Your task to perform on an android device: toggle improve location accuracy Image 0: 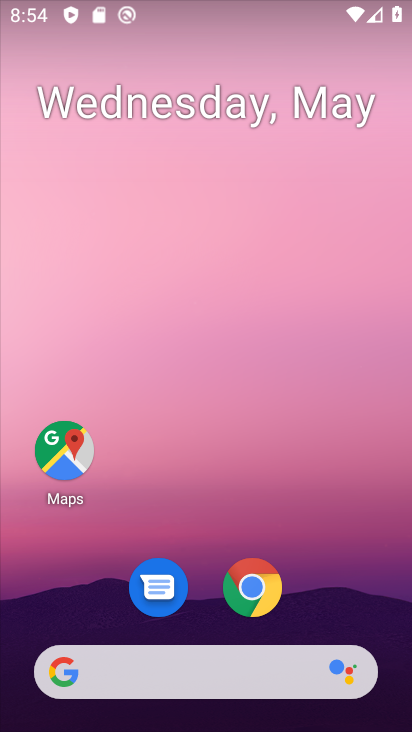
Step 0: drag from (94, 637) to (305, 139)
Your task to perform on an android device: toggle improve location accuracy Image 1: 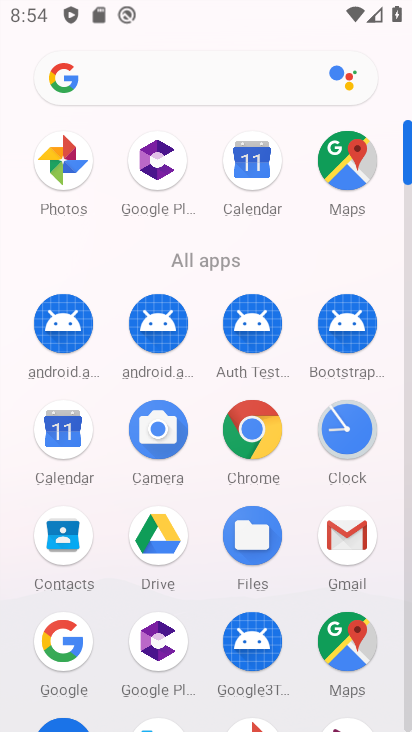
Step 1: drag from (187, 582) to (245, 394)
Your task to perform on an android device: toggle improve location accuracy Image 2: 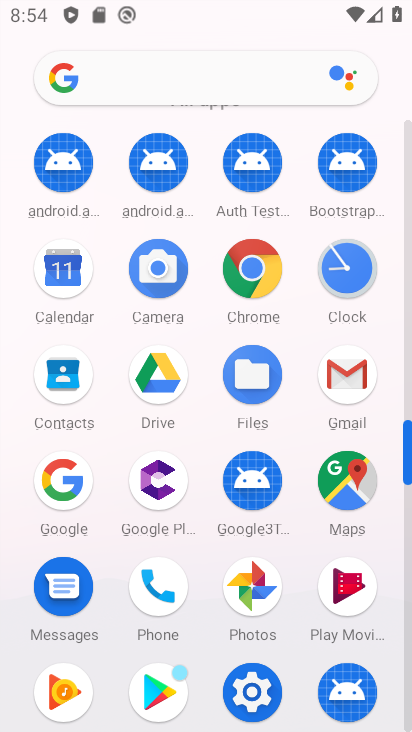
Step 2: click (252, 683)
Your task to perform on an android device: toggle improve location accuracy Image 3: 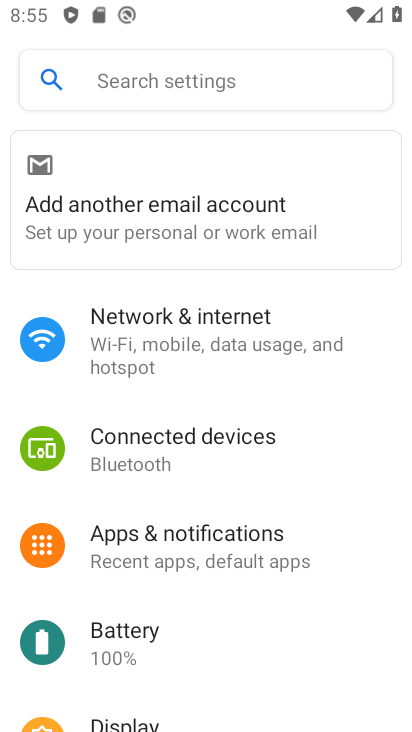
Step 3: drag from (185, 623) to (365, 232)
Your task to perform on an android device: toggle improve location accuracy Image 4: 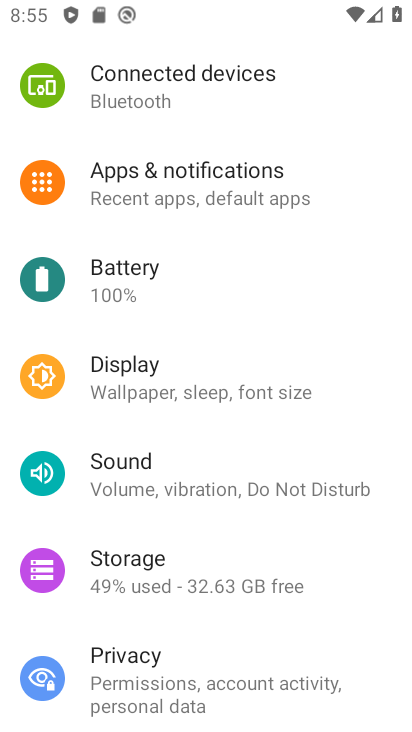
Step 4: drag from (198, 588) to (300, 281)
Your task to perform on an android device: toggle improve location accuracy Image 5: 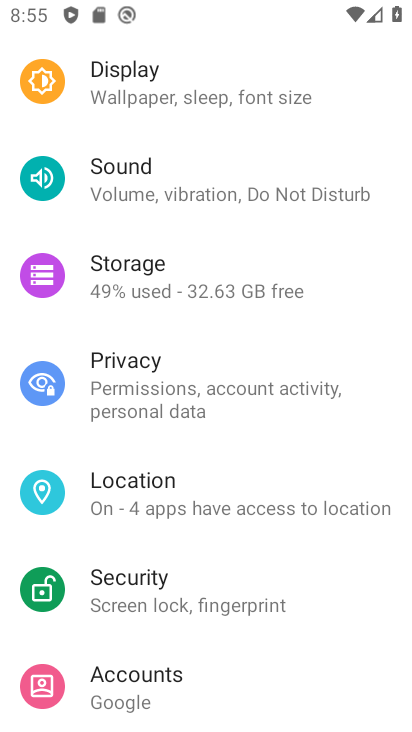
Step 5: click (157, 500)
Your task to perform on an android device: toggle improve location accuracy Image 6: 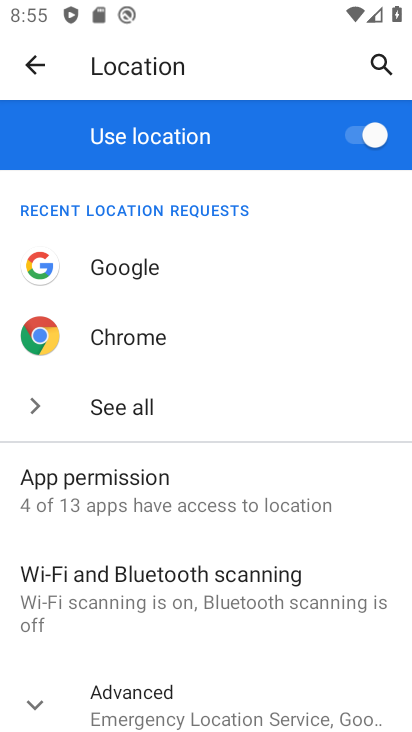
Step 6: drag from (142, 695) to (186, 520)
Your task to perform on an android device: toggle improve location accuracy Image 7: 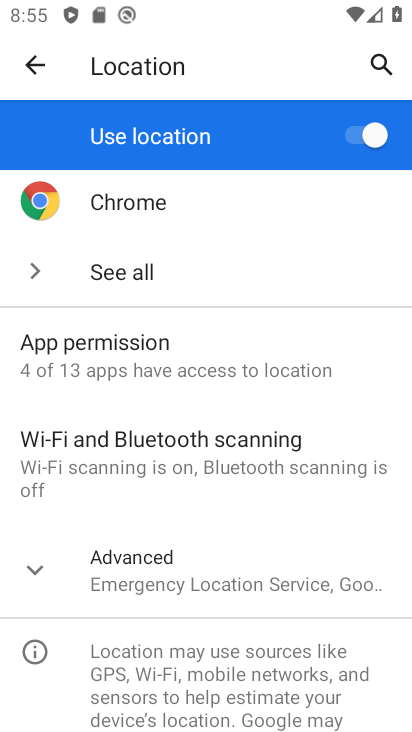
Step 7: click (138, 582)
Your task to perform on an android device: toggle improve location accuracy Image 8: 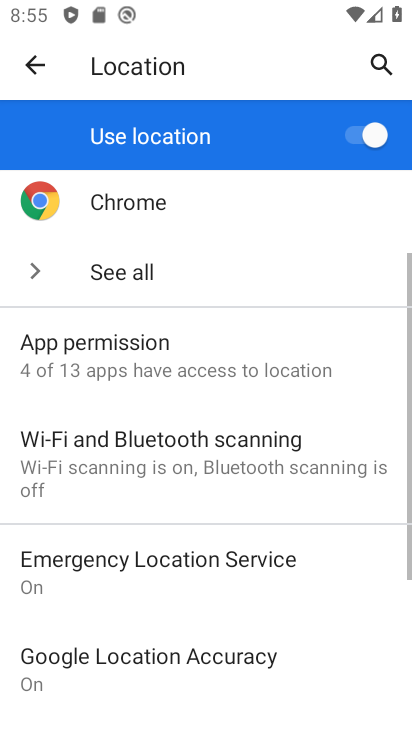
Step 8: drag from (138, 581) to (230, 363)
Your task to perform on an android device: toggle improve location accuracy Image 9: 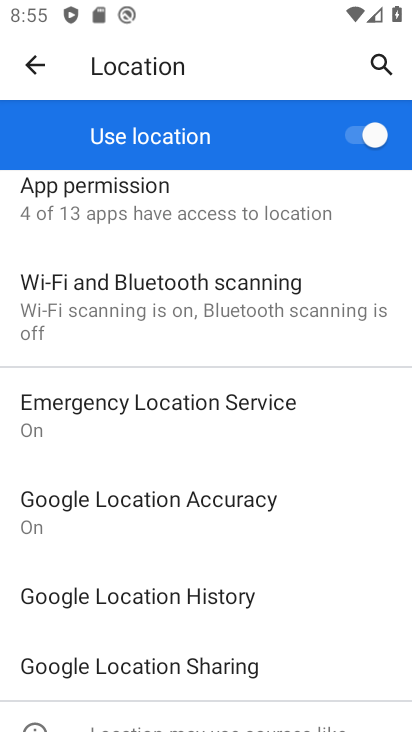
Step 9: click (158, 525)
Your task to perform on an android device: toggle improve location accuracy Image 10: 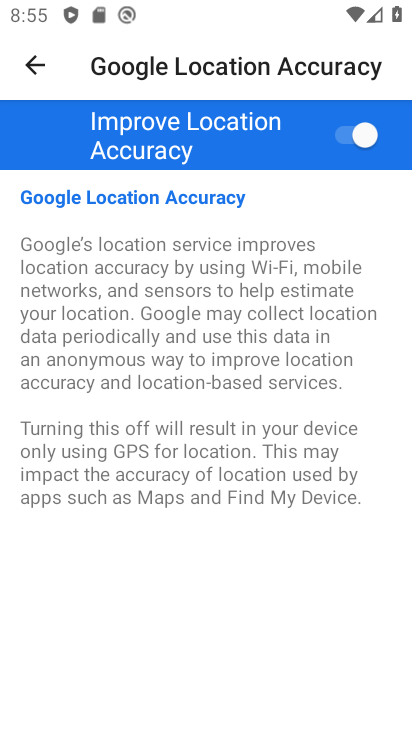
Step 10: click (351, 133)
Your task to perform on an android device: toggle improve location accuracy Image 11: 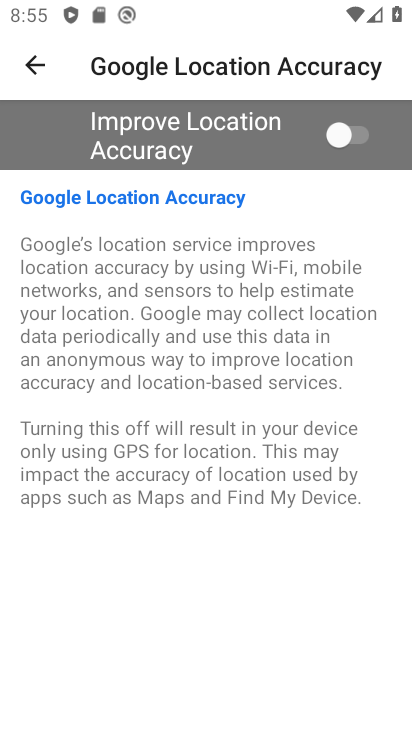
Step 11: task complete